Your task to perform on an android device: change notifications settings Image 0: 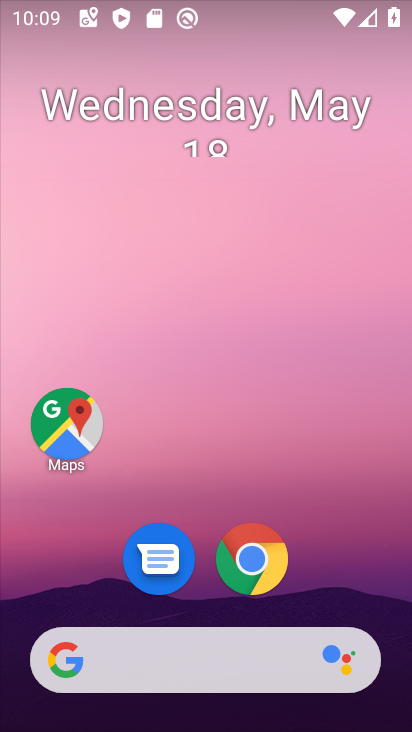
Step 0: drag from (199, 559) to (232, 166)
Your task to perform on an android device: change notifications settings Image 1: 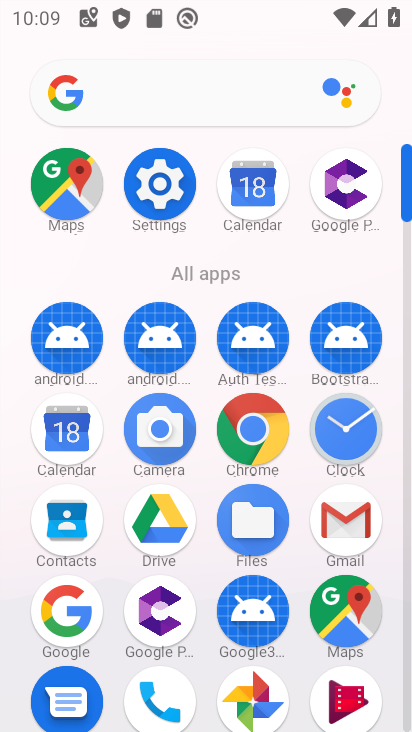
Step 1: click (159, 187)
Your task to perform on an android device: change notifications settings Image 2: 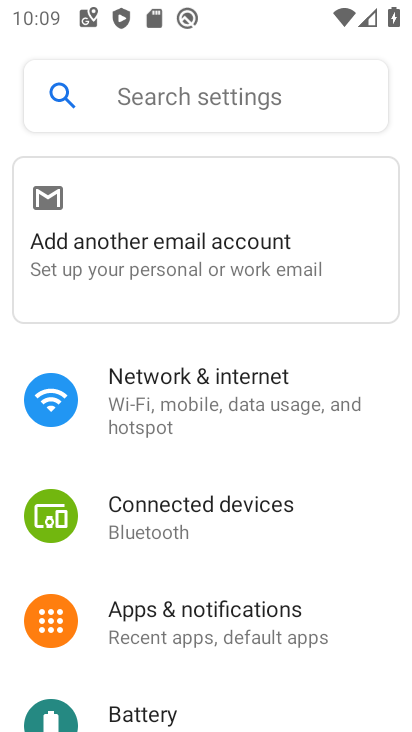
Step 2: click (226, 635)
Your task to perform on an android device: change notifications settings Image 3: 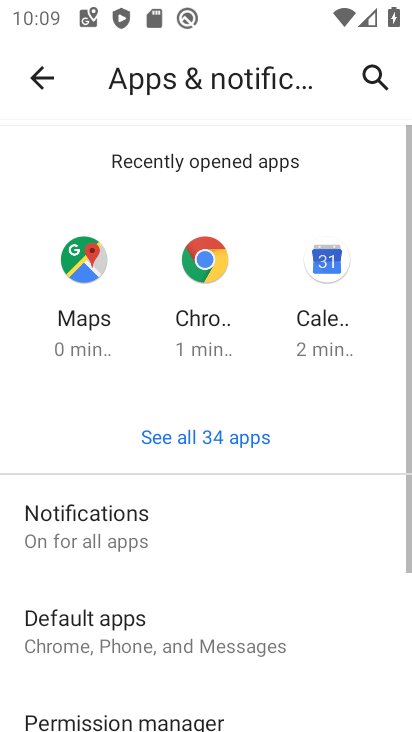
Step 3: click (78, 541)
Your task to perform on an android device: change notifications settings Image 4: 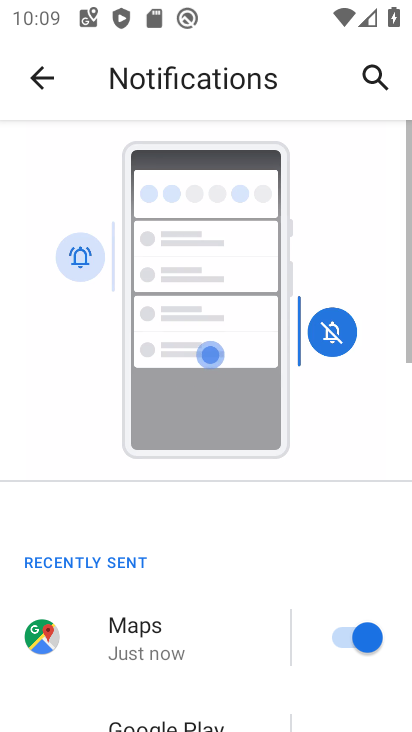
Step 4: drag from (181, 568) to (214, 42)
Your task to perform on an android device: change notifications settings Image 5: 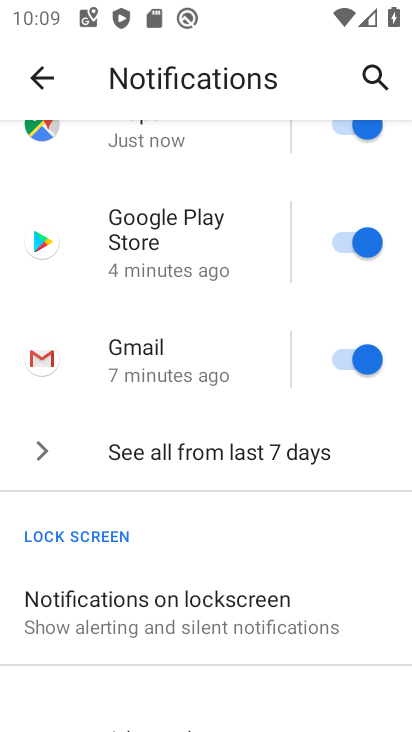
Step 5: click (342, 122)
Your task to perform on an android device: change notifications settings Image 6: 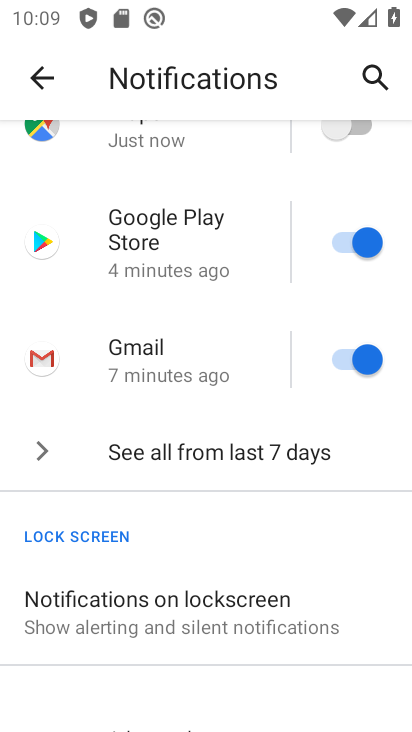
Step 6: click (366, 248)
Your task to perform on an android device: change notifications settings Image 7: 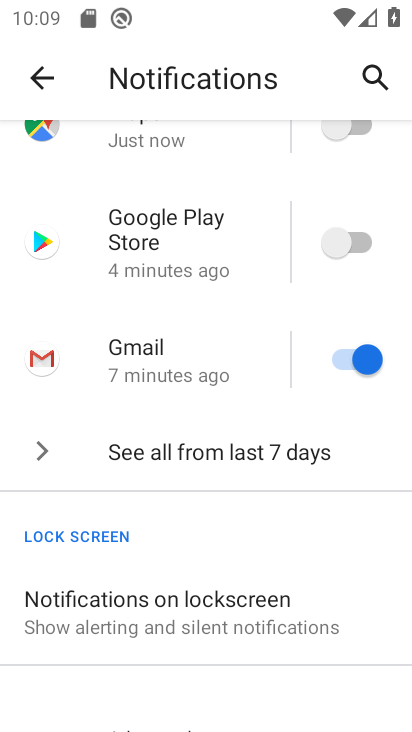
Step 7: click (342, 354)
Your task to perform on an android device: change notifications settings Image 8: 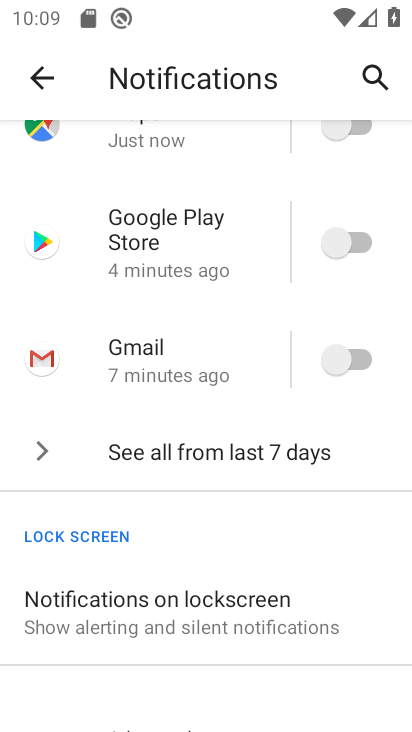
Step 8: click (221, 466)
Your task to perform on an android device: change notifications settings Image 9: 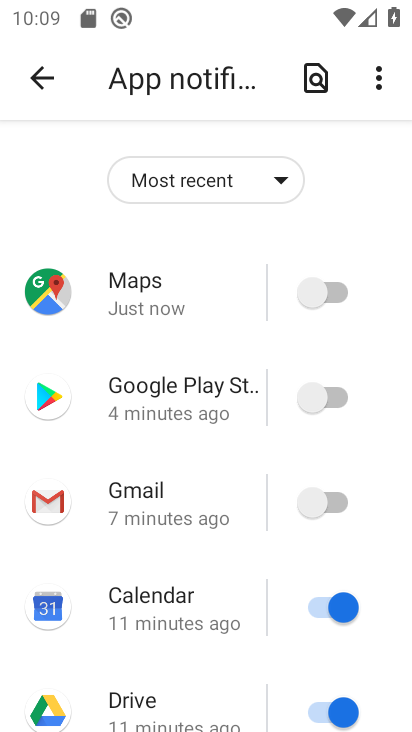
Step 9: drag from (295, 480) to (324, 212)
Your task to perform on an android device: change notifications settings Image 10: 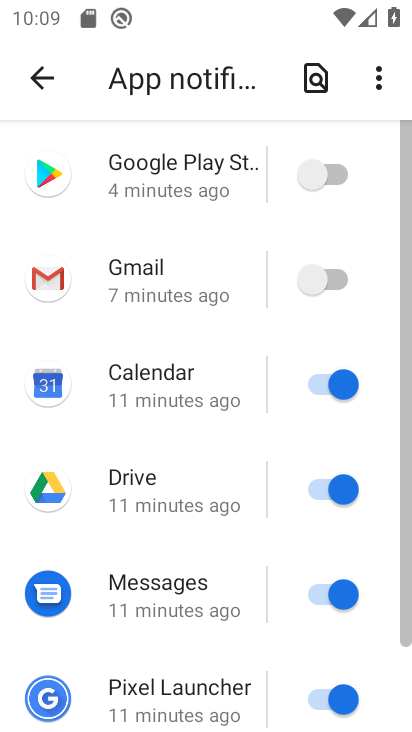
Step 10: click (311, 390)
Your task to perform on an android device: change notifications settings Image 11: 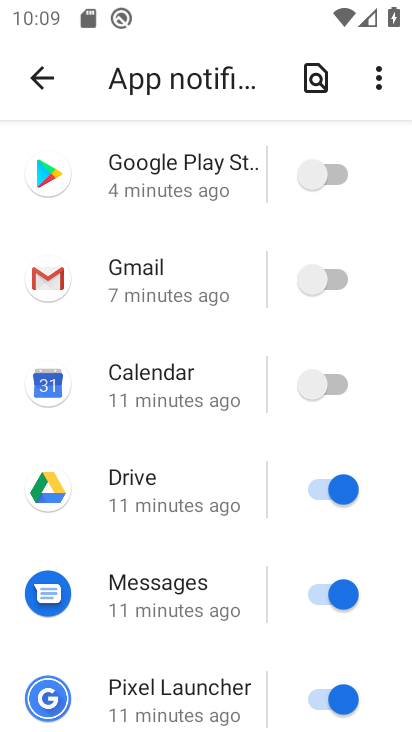
Step 11: click (323, 496)
Your task to perform on an android device: change notifications settings Image 12: 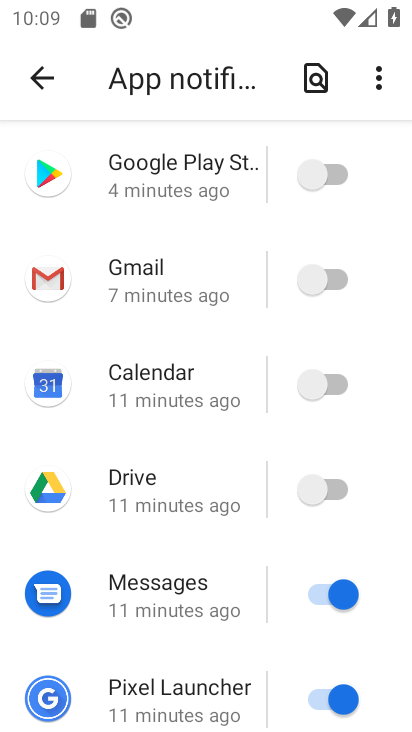
Step 12: click (309, 591)
Your task to perform on an android device: change notifications settings Image 13: 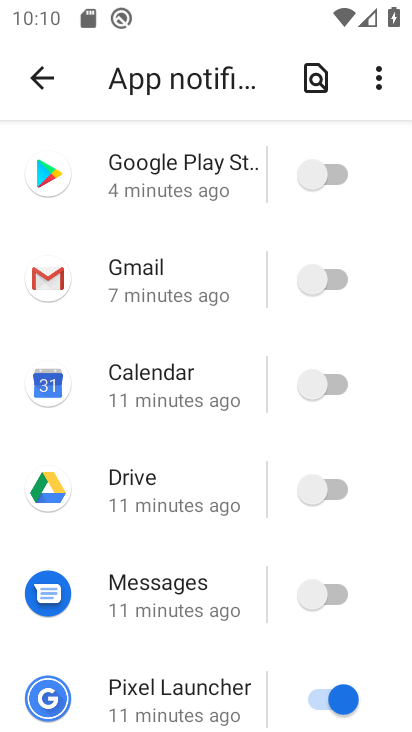
Step 13: click (308, 698)
Your task to perform on an android device: change notifications settings Image 14: 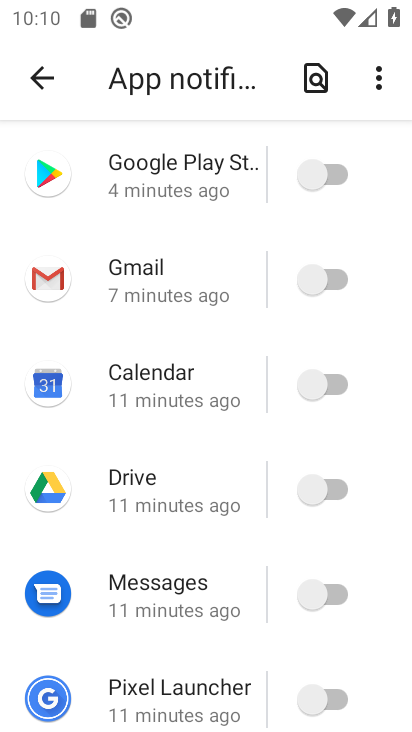
Step 14: task complete